Your task to perform on an android device: Go to calendar. Show me events next week Image 0: 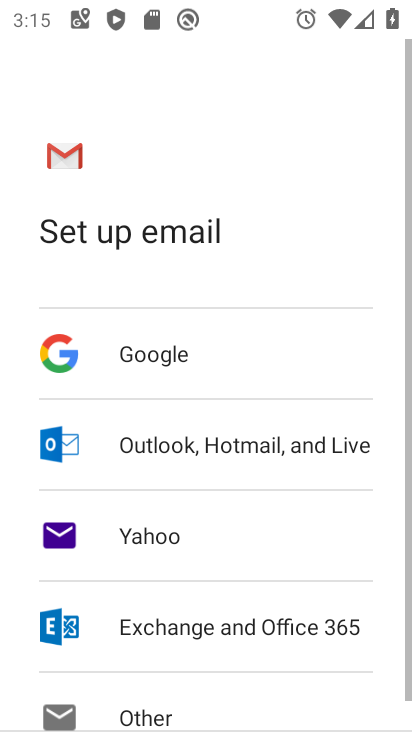
Step 0: press home button
Your task to perform on an android device: Go to calendar. Show me events next week Image 1: 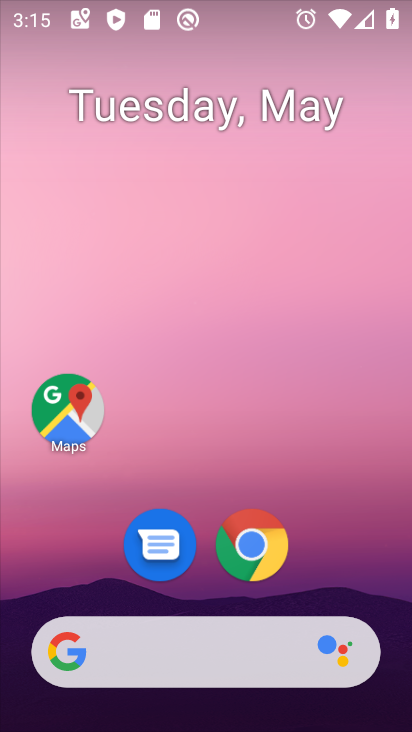
Step 1: drag from (235, 644) to (270, 72)
Your task to perform on an android device: Go to calendar. Show me events next week Image 2: 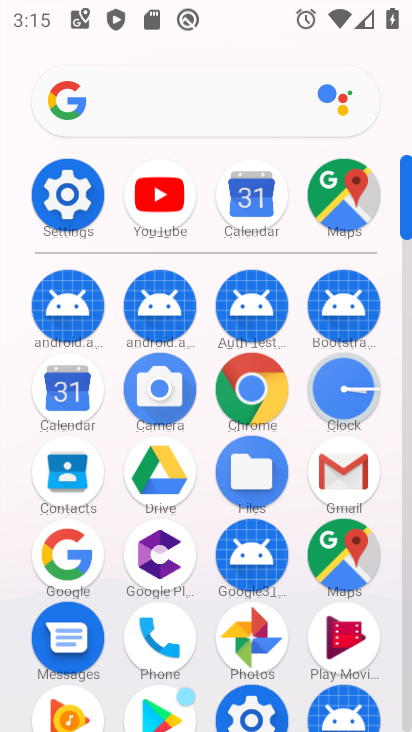
Step 2: click (60, 381)
Your task to perform on an android device: Go to calendar. Show me events next week Image 3: 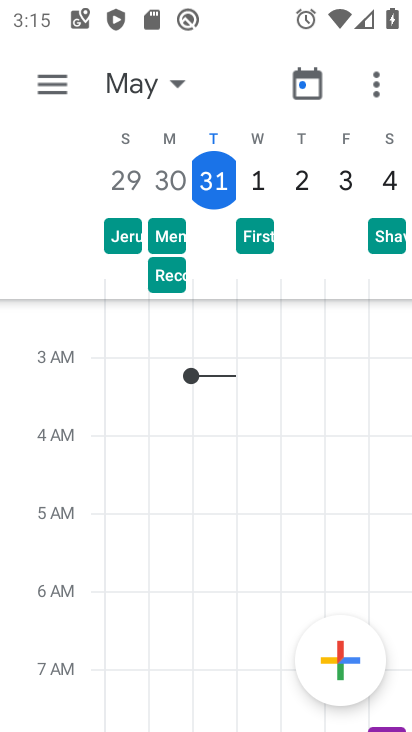
Step 3: task complete